Your task to perform on an android device: stop showing notifications on the lock screen Image 0: 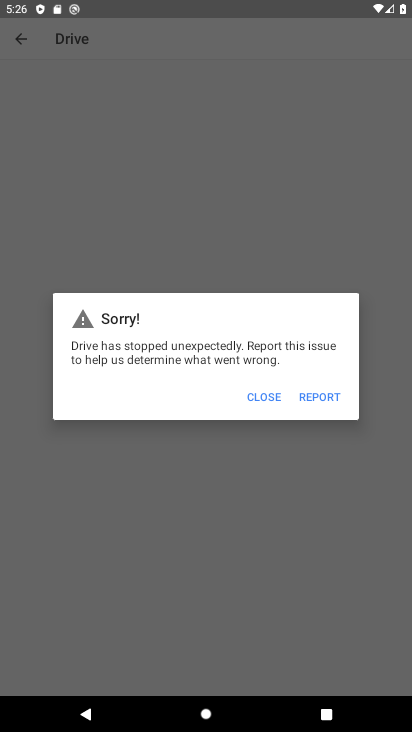
Step 0: press back button
Your task to perform on an android device: stop showing notifications on the lock screen Image 1: 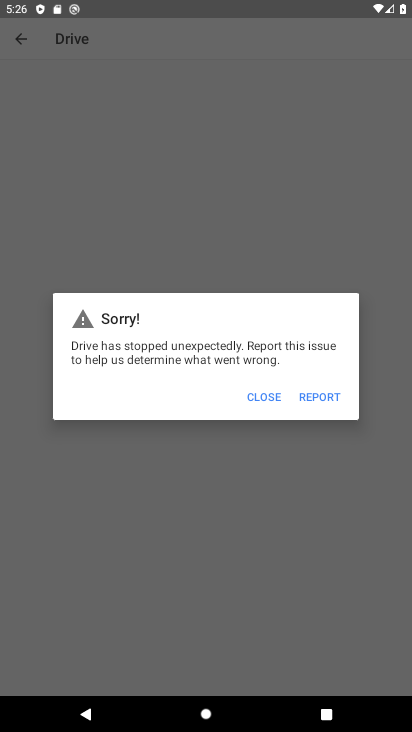
Step 1: press home button
Your task to perform on an android device: stop showing notifications on the lock screen Image 2: 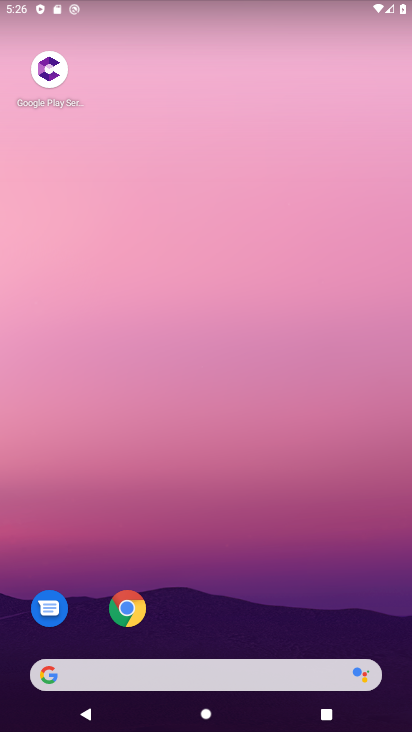
Step 2: drag from (272, 471) to (255, 3)
Your task to perform on an android device: stop showing notifications on the lock screen Image 3: 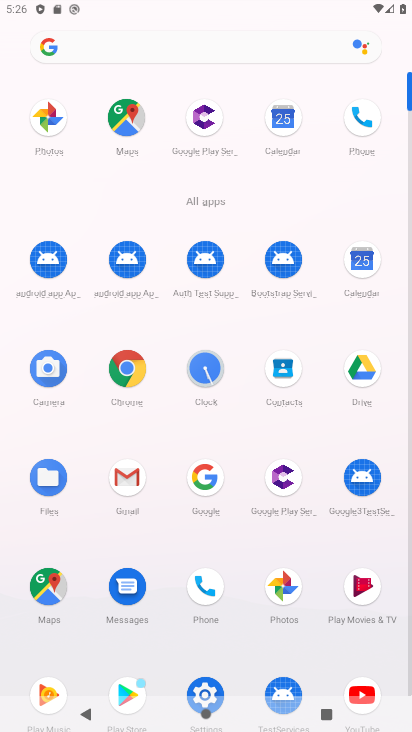
Step 3: drag from (14, 482) to (27, 197)
Your task to perform on an android device: stop showing notifications on the lock screen Image 4: 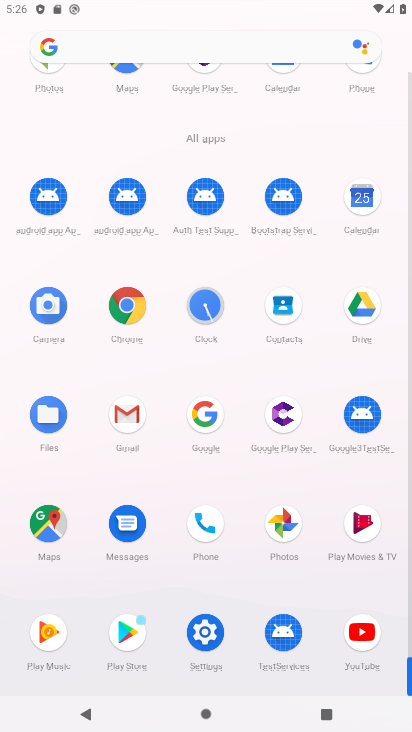
Step 4: click (205, 628)
Your task to perform on an android device: stop showing notifications on the lock screen Image 5: 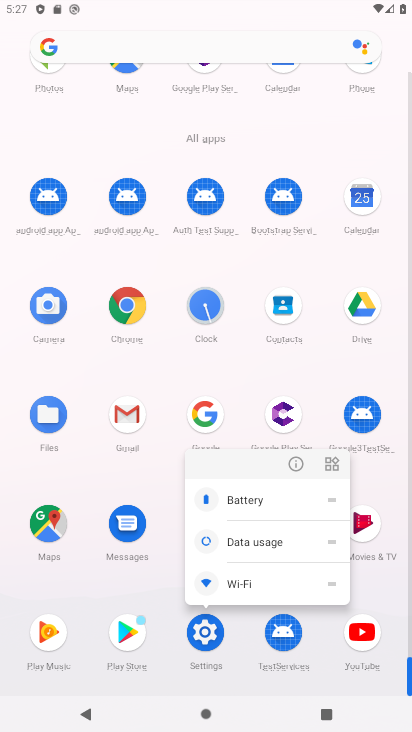
Step 5: click (205, 628)
Your task to perform on an android device: stop showing notifications on the lock screen Image 6: 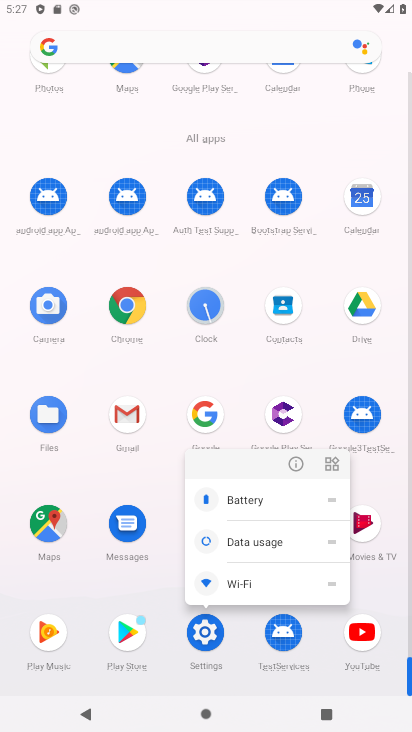
Step 6: click (205, 628)
Your task to perform on an android device: stop showing notifications on the lock screen Image 7: 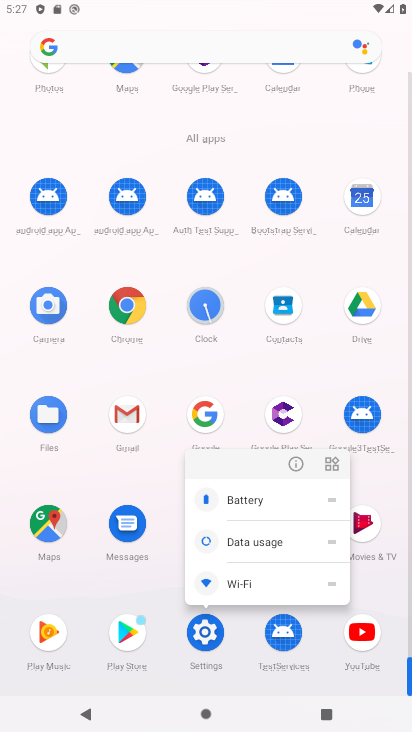
Step 7: click (205, 628)
Your task to perform on an android device: stop showing notifications on the lock screen Image 8: 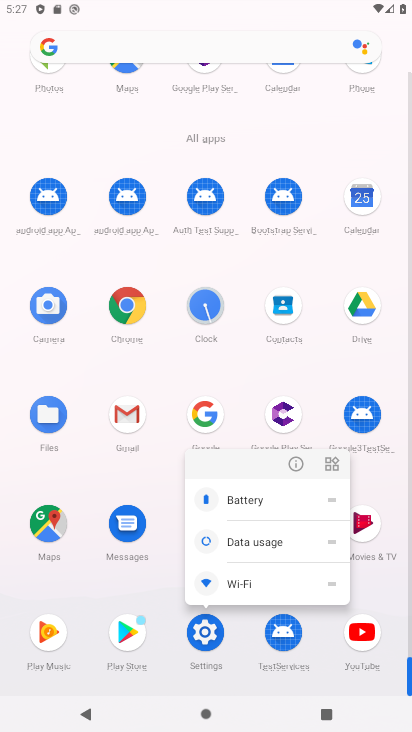
Step 8: click (205, 628)
Your task to perform on an android device: stop showing notifications on the lock screen Image 9: 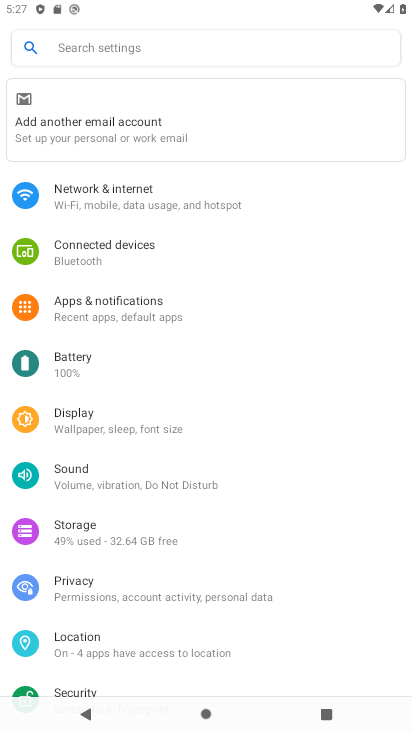
Step 9: drag from (197, 275) to (202, 221)
Your task to perform on an android device: stop showing notifications on the lock screen Image 10: 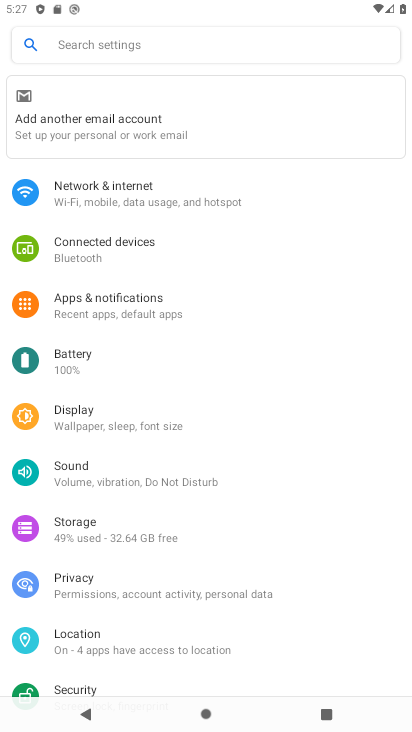
Step 10: click (126, 638)
Your task to perform on an android device: stop showing notifications on the lock screen Image 11: 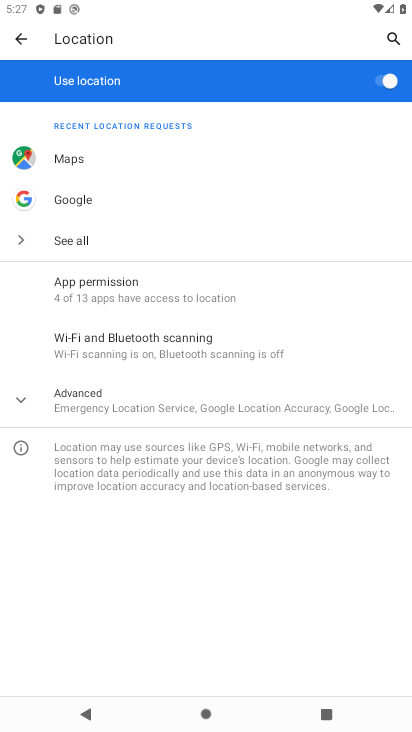
Step 11: click (141, 400)
Your task to perform on an android device: stop showing notifications on the lock screen Image 12: 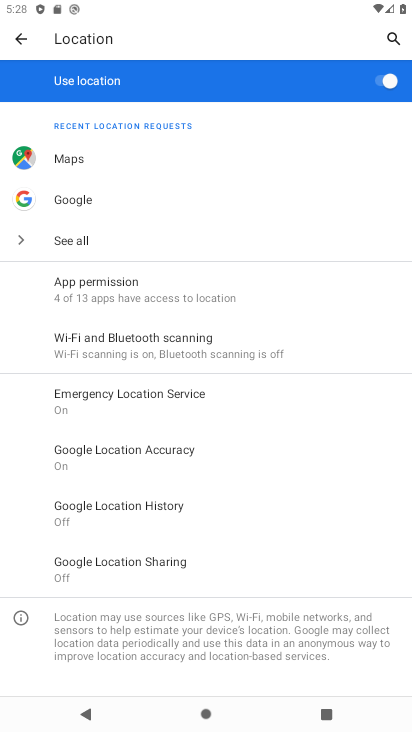
Step 12: click (18, 38)
Your task to perform on an android device: stop showing notifications on the lock screen Image 13: 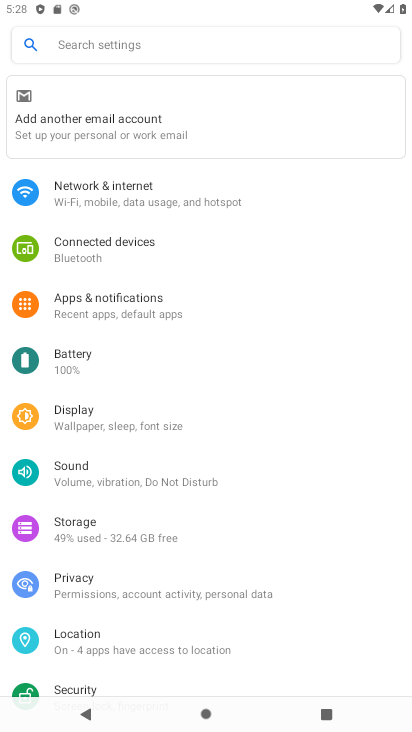
Step 13: drag from (149, 627) to (232, 390)
Your task to perform on an android device: stop showing notifications on the lock screen Image 14: 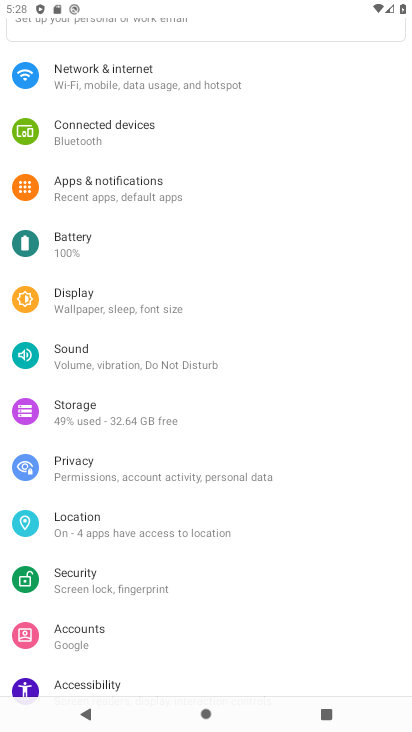
Step 14: click (170, 184)
Your task to perform on an android device: stop showing notifications on the lock screen Image 15: 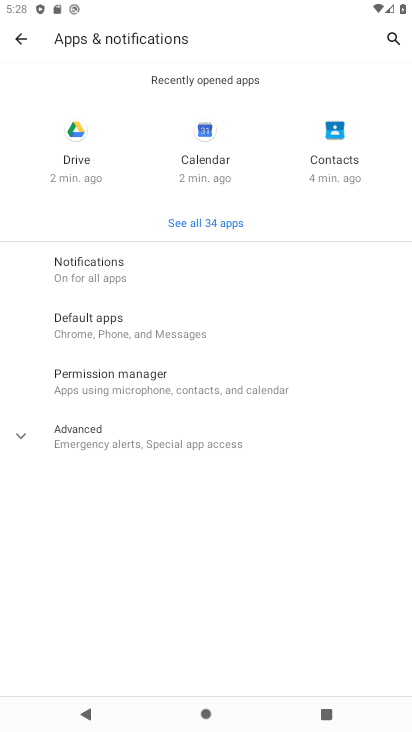
Step 15: click (122, 262)
Your task to perform on an android device: stop showing notifications on the lock screen Image 16: 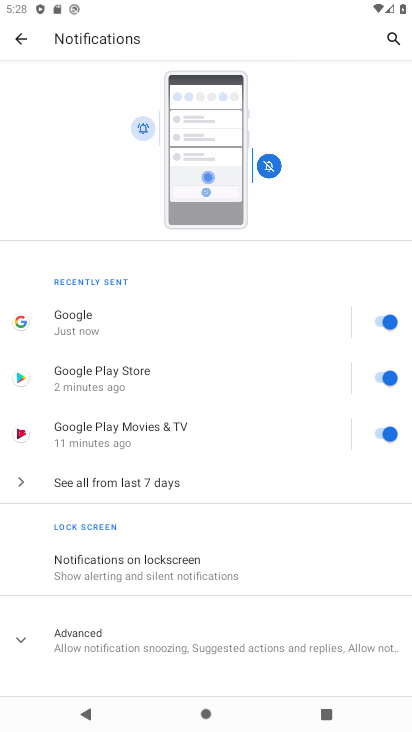
Step 16: drag from (185, 587) to (222, 274)
Your task to perform on an android device: stop showing notifications on the lock screen Image 17: 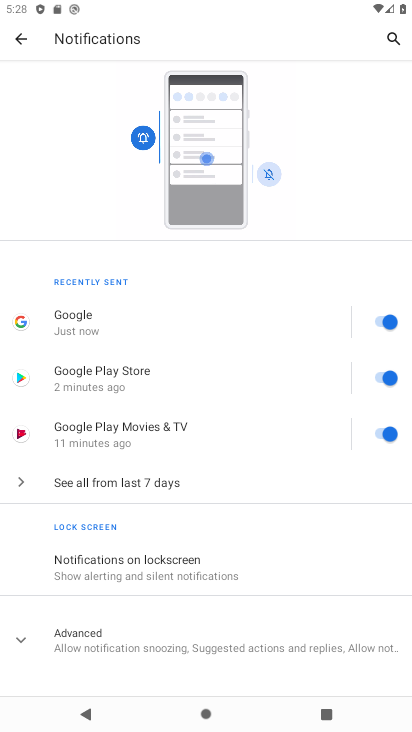
Step 17: click (225, 569)
Your task to perform on an android device: stop showing notifications on the lock screen Image 18: 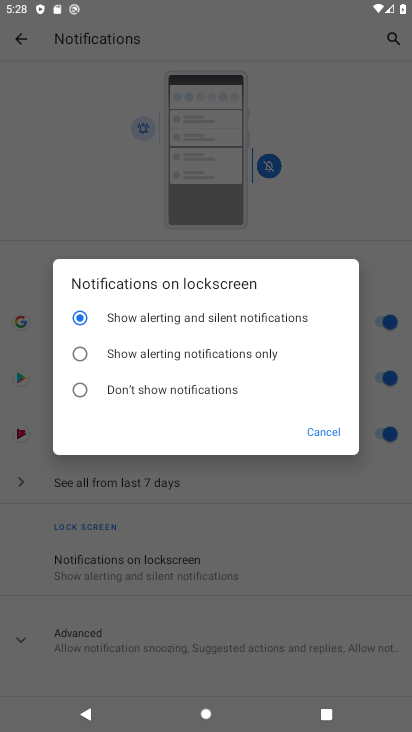
Step 18: click (150, 391)
Your task to perform on an android device: stop showing notifications on the lock screen Image 19: 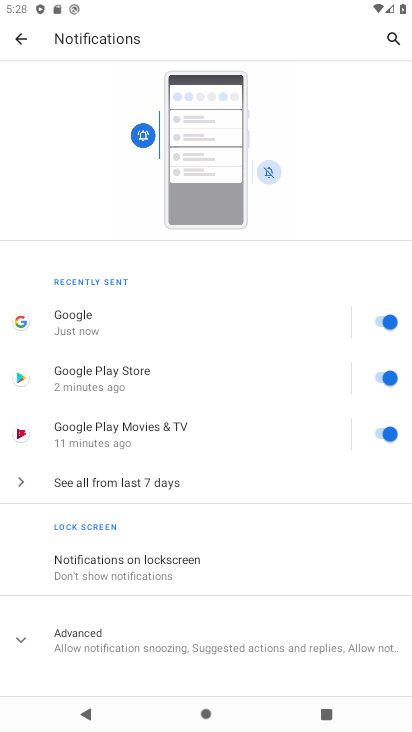
Step 19: task complete